Your task to perform on an android device: set default search engine in the chrome app Image 0: 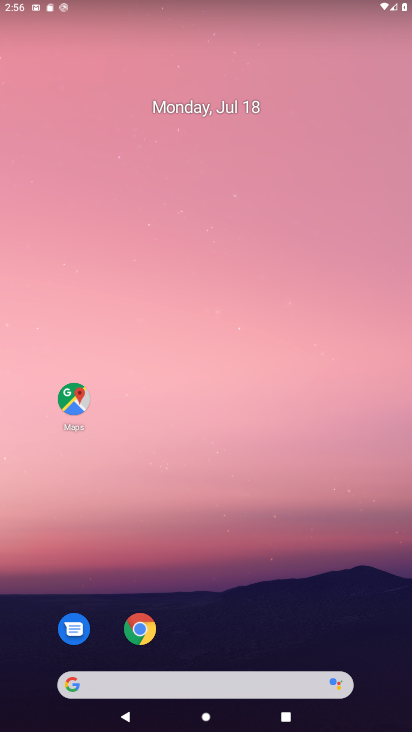
Step 0: drag from (359, 620) to (368, 143)
Your task to perform on an android device: set default search engine in the chrome app Image 1: 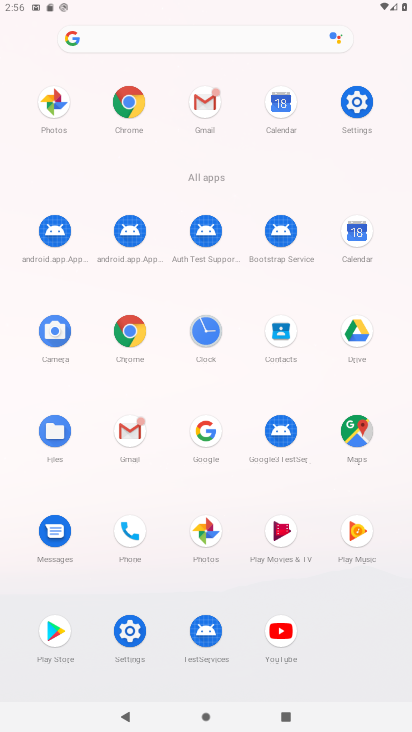
Step 1: click (139, 331)
Your task to perform on an android device: set default search engine in the chrome app Image 2: 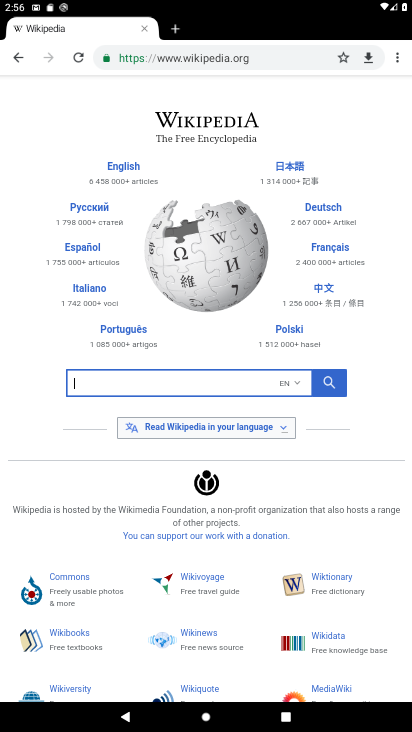
Step 2: click (394, 58)
Your task to perform on an android device: set default search engine in the chrome app Image 3: 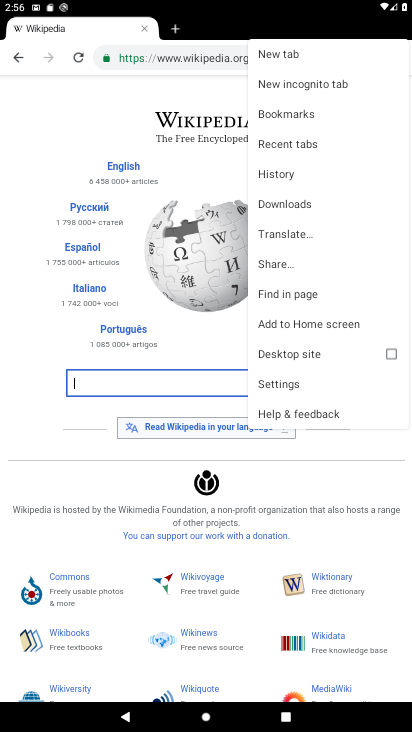
Step 3: click (316, 376)
Your task to perform on an android device: set default search engine in the chrome app Image 4: 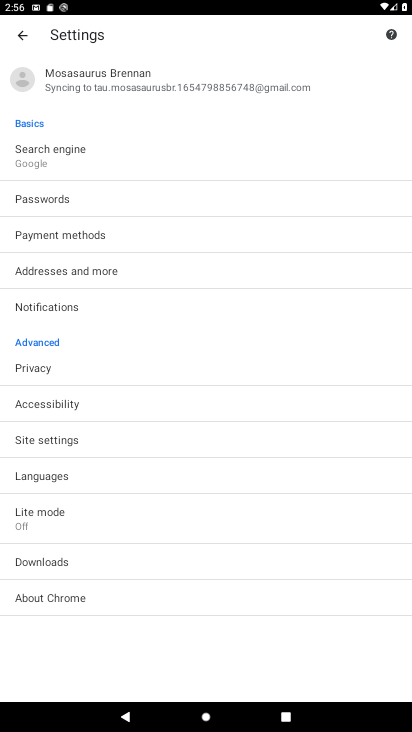
Step 4: drag from (315, 446) to (316, 347)
Your task to perform on an android device: set default search engine in the chrome app Image 5: 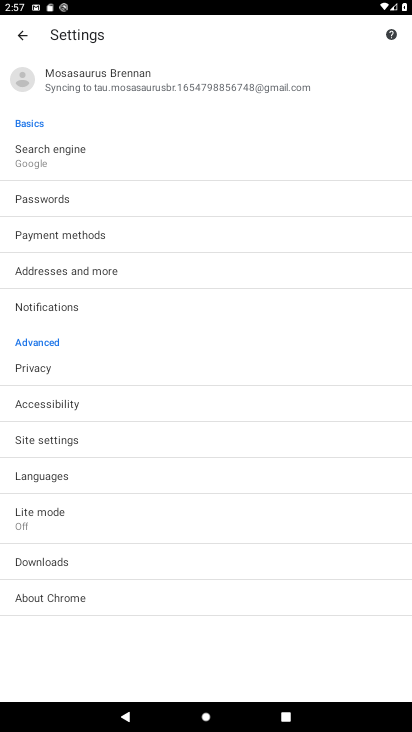
Step 5: click (183, 161)
Your task to perform on an android device: set default search engine in the chrome app Image 6: 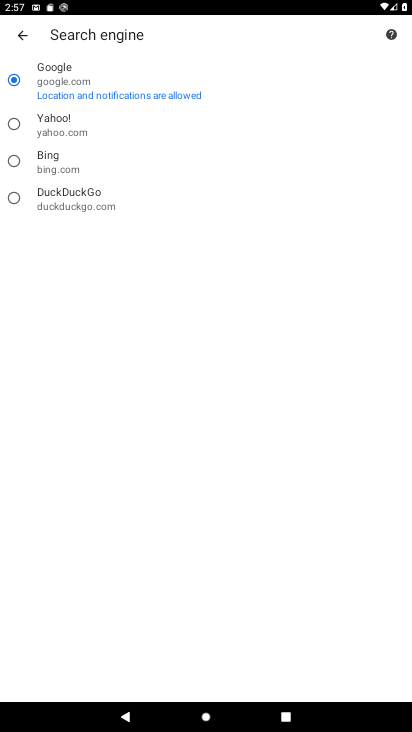
Step 6: click (83, 164)
Your task to perform on an android device: set default search engine in the chrome app Image 7: 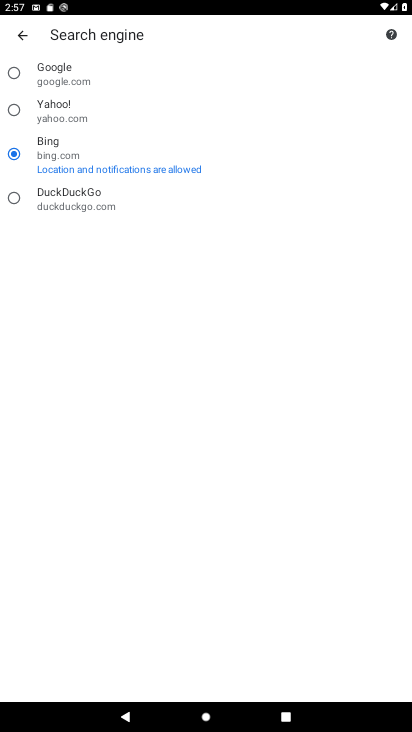
Step 7: task complete